Your task to perform on an android device: toggle notifications settings in the gmail app Image 0: 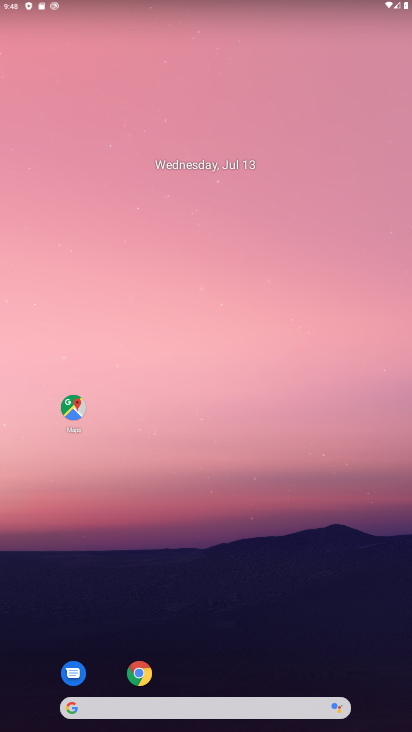
Step 0: drag from (206, 630) to (345, 124)
Your task to perform on an android device: toggle notifications settings in the gmail app Image 1: 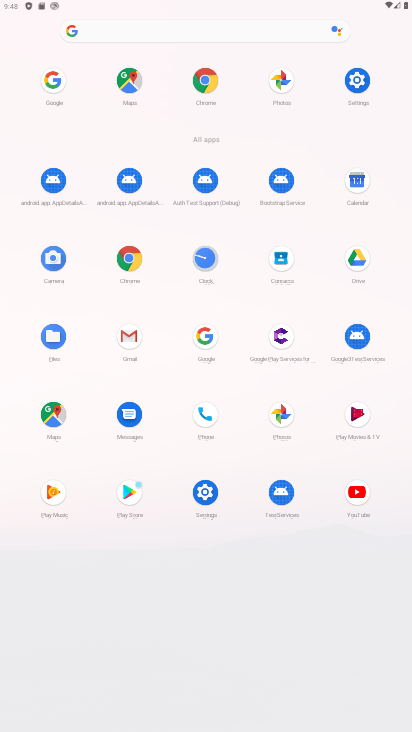
Step 1: click (134, 338)
Your task to perform on an android device: toggle notifications settings in the gmail app Image 2: 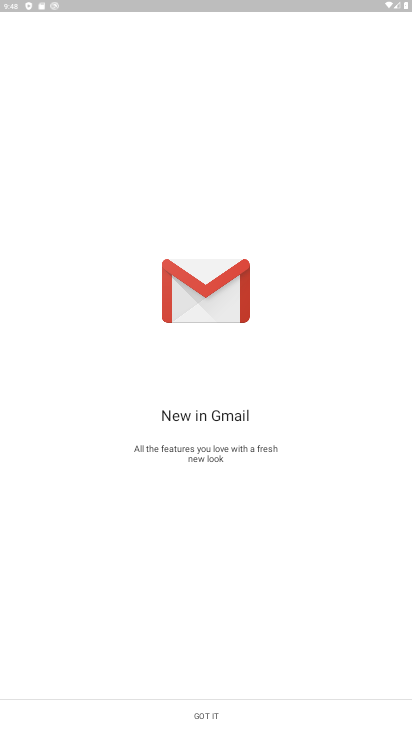
Step 2: click (221, 716)
Your task to perform on an android device: toggle notifications settings in the gmail app Image 3: 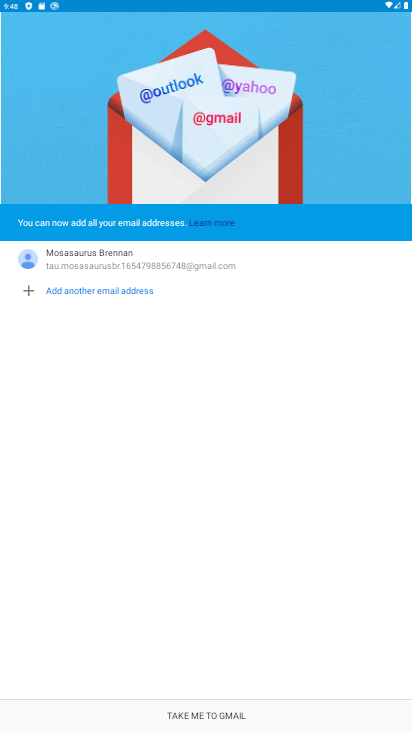
Step 3: click (221, 718)
Your task to perform on an android device: toggle notifications settings in the gmail app Image 4: 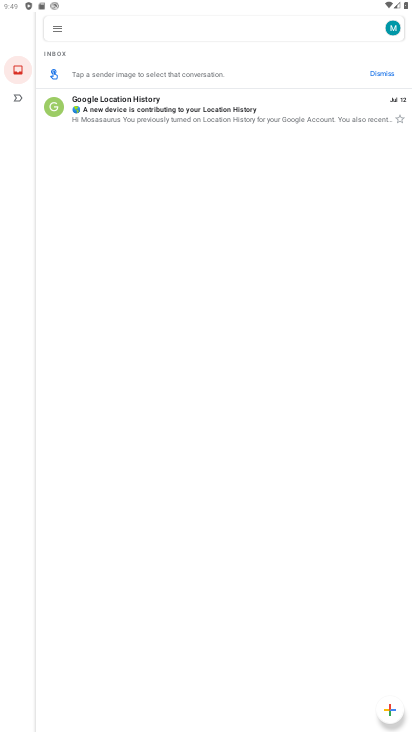
Step 4: click (59, 34)
Your task to perform on an android device: toggle notifications settings in the gmail app Image 5: 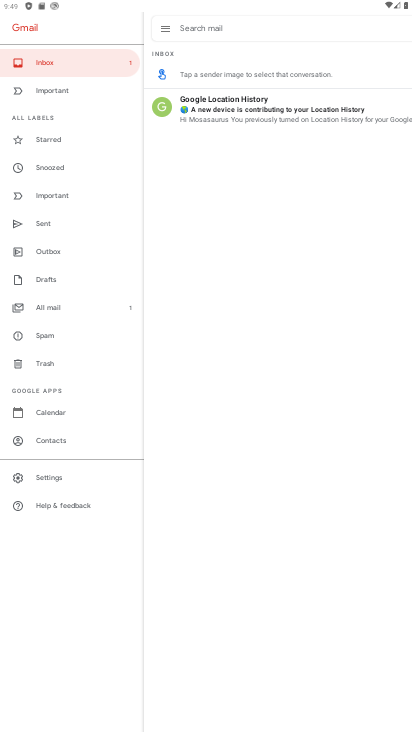
Step 5: click (43, 478)
Your task to perform on an android device: toggle notifications settings in the gmail app Image 6: 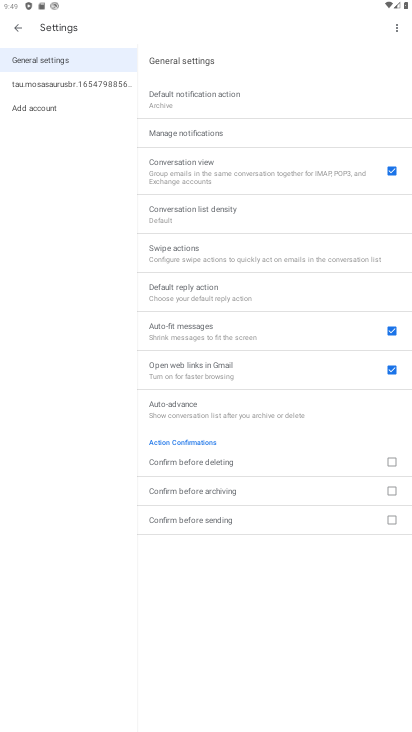
Step 6: click (212, 132)
Your task to perform on an android device: toggle notifications settings in the gmail app Image 7: 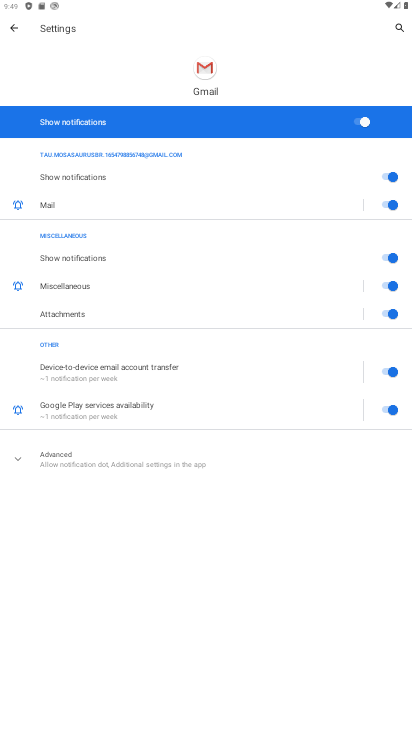
Step 7: click (361, 120)
Your task to perform on an android device: toggle notifications settings in the gmail app Image 8: 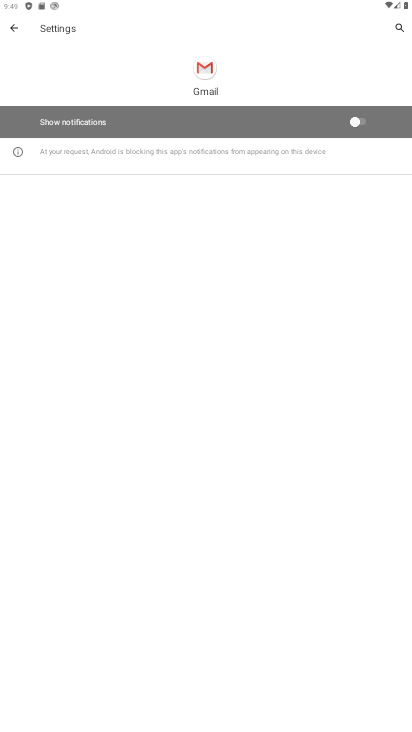
Step 8: task complete